Your task to perform on an android device: Open calendar and show me the first week of next month Image 0: 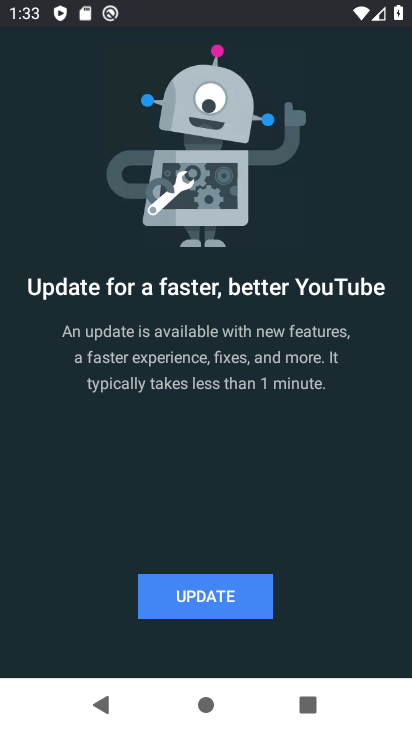
Step 0: press home button
Your task to perform on an android device: Open calendar and show me the first week of next month Image 1: 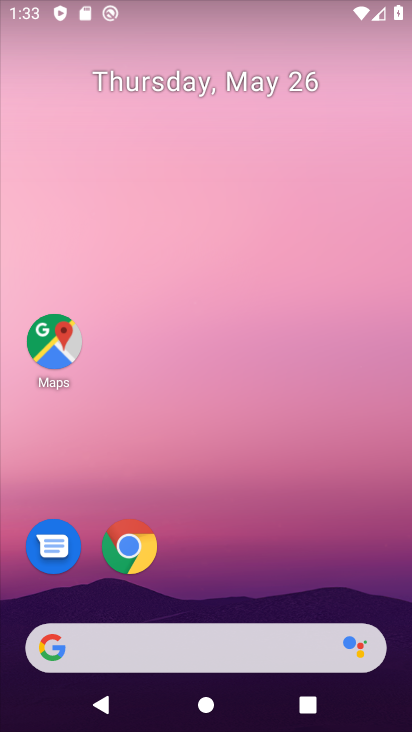
Step 1: drag from (260, 562) to (334, 53)
Your task to perform on an android device: Open calendar and show me the first week of next month Image 2: 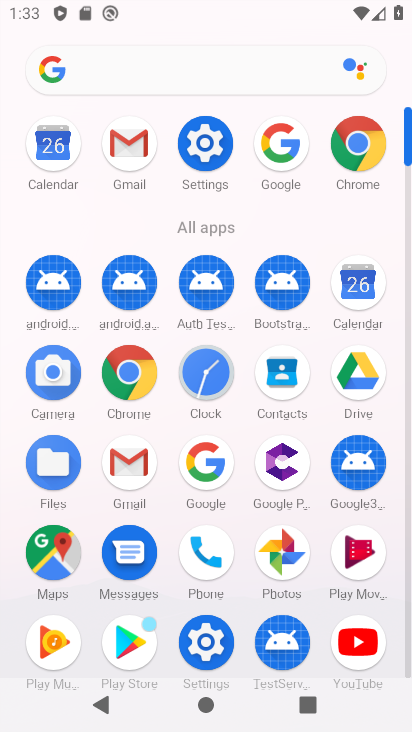
Step 2: click (368, 275)
Your task to perform on an android device: Open calendar and show me the first week of next month Image 3: 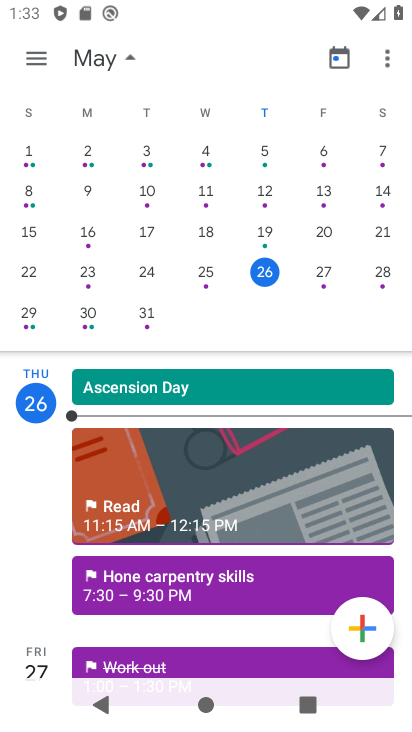
Step 3: drag from (338, 313) to (26, 280)
Your task to perform on an android device: Open calendar and show me the first week of next month Image 4: 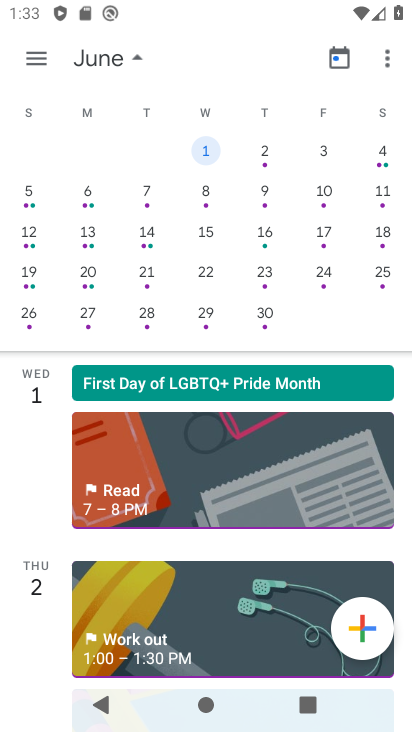
Step 4: click (265, 146)
Your task to perform on an android device: Open calendar and show me the first week of next month Image 5: 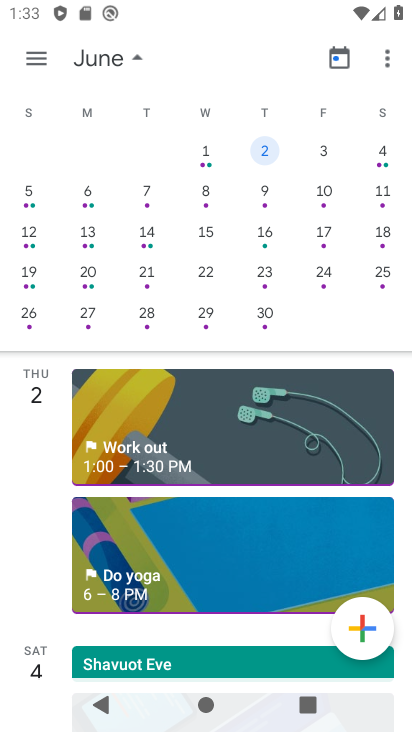
Step 5: task complete